Your task to perform on an android device: turn off javascript in the chrome app Image 0: 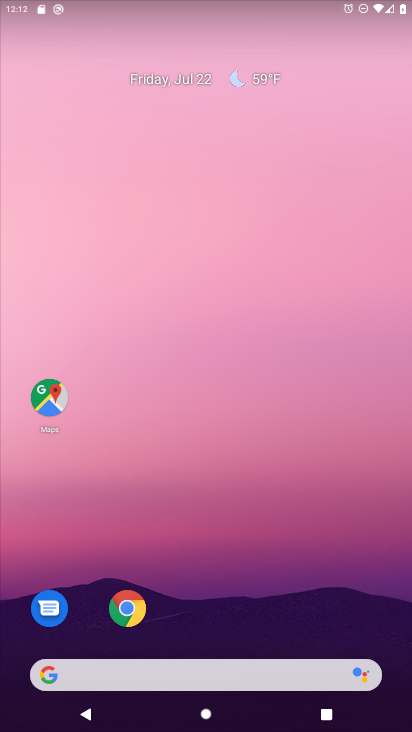
Step 0: drag from (355, 601) to (195, 82)
Your task to perform on an android device: turn off javascript in the chrome app Image 1: 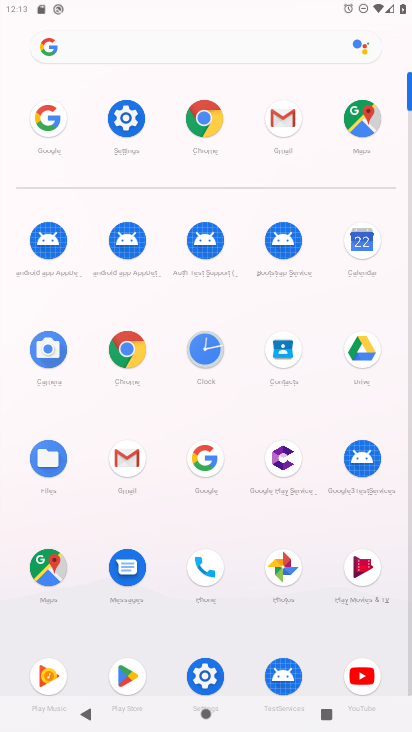
Step 1: click (125, 346)
Your task to perform on an android device: turn off javascript in the chrome app Image 2: 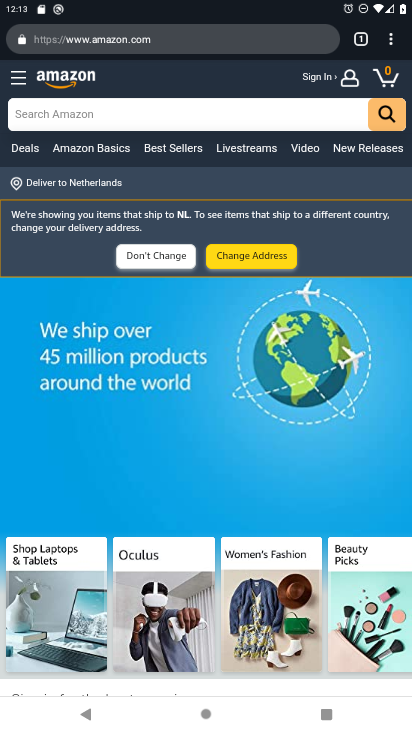
Step 2: click (393, 40)
Your task to perform on an android device: turn off javascript in the chrome app Image 3: 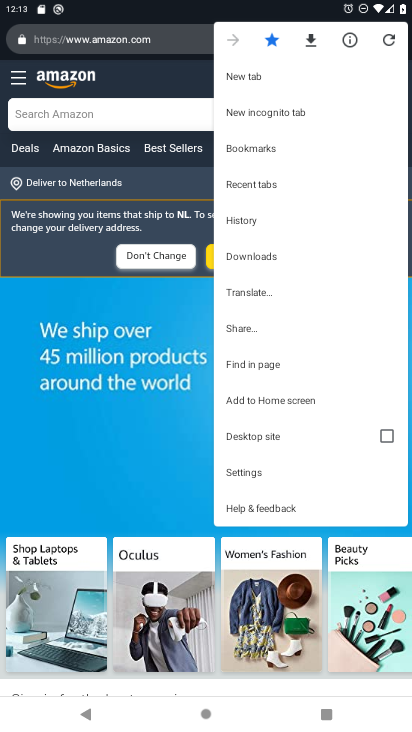
Step 3: click (268, 468)
Your task to perform on an android device: turn off javascript in the chrome app Image 4: 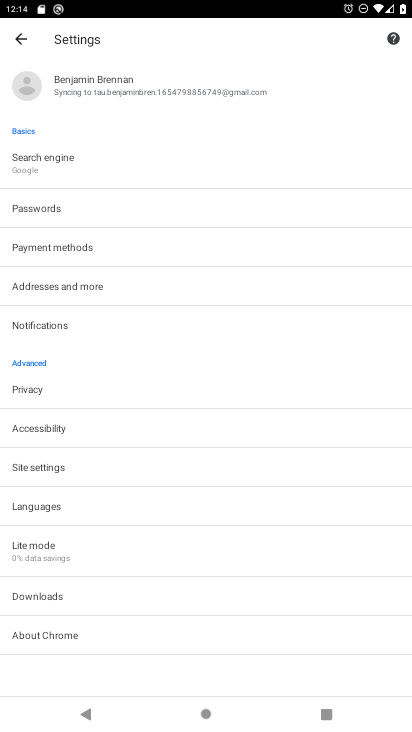
Step 4: click (69, 468)
Your task to perform on an android device: turn off javascript in the chrome app Image 5: 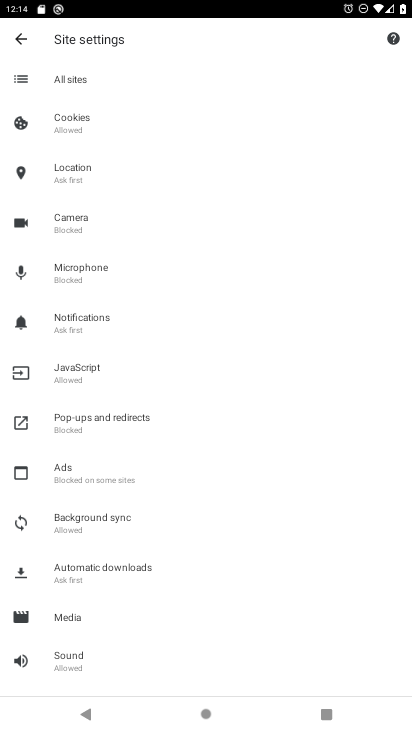
Step 5: click (95, 375)
Your task to perform on an android device: turn off javascript in the chrome app Image 6: 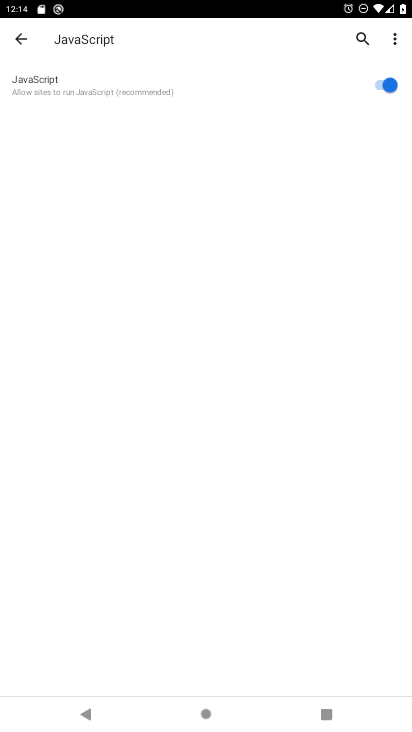
Step 6: click (381, 90)
Your task to perform on an android device: turn off javascript in the chrome app Image 7: 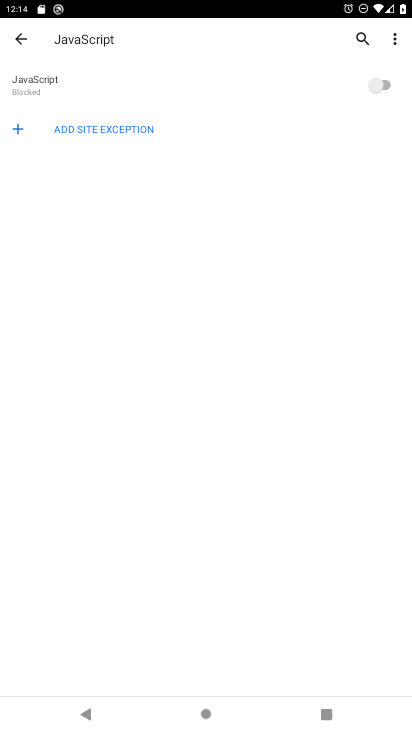
Step 7: task complete